Your task to perform on an android device: Open Chrome and go to the settings page Image 0: 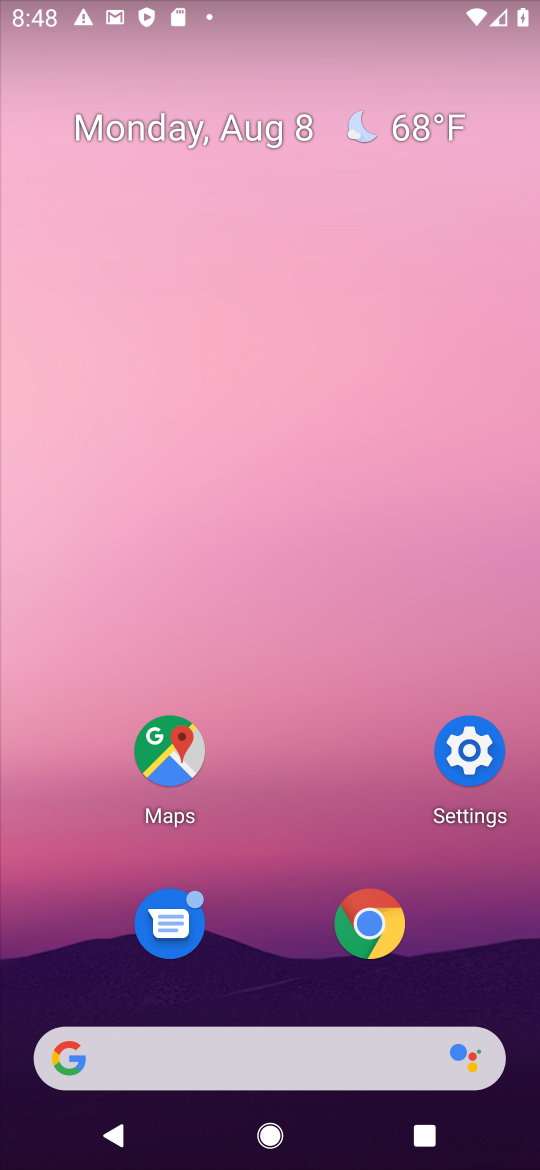
Step 0: click (359, 903)
Your task to perform on an android device: Open Chrome and go to the settings page Image 1: 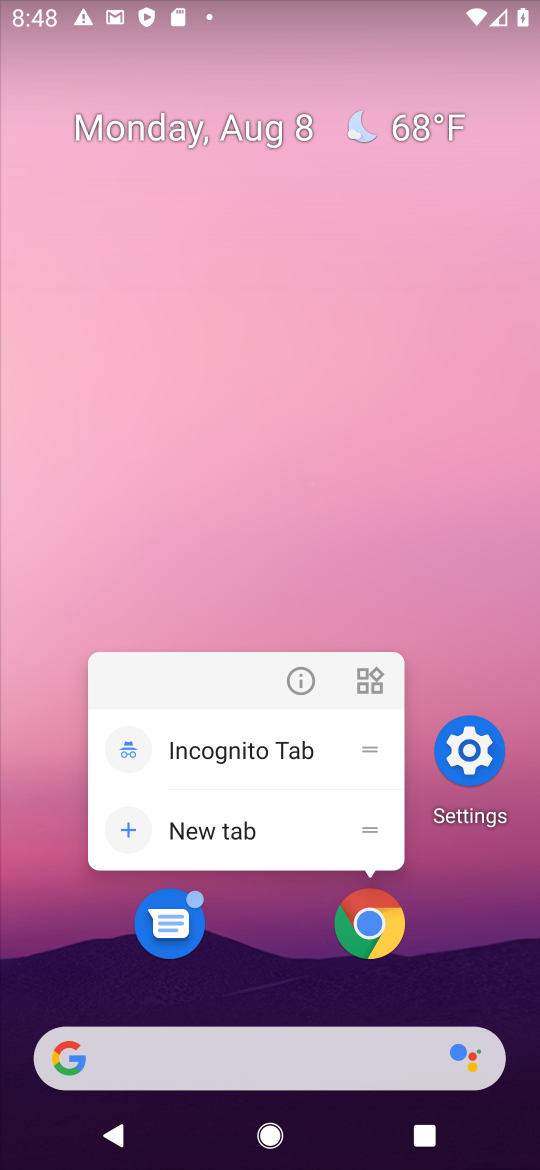
Step 1: click (374, 914)
Your task to perform on an android device: Open Chrome and go to the settings page Image 2: 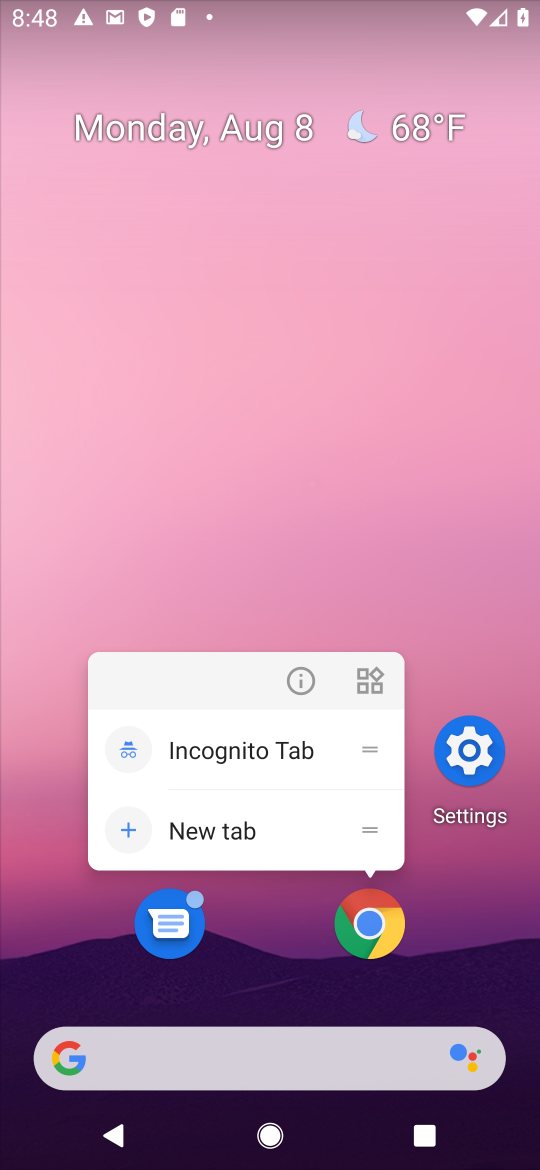
Step 2: click (374, 917)
Your task to perform on an android device: Open Chrome and go to the settings page Image 3: 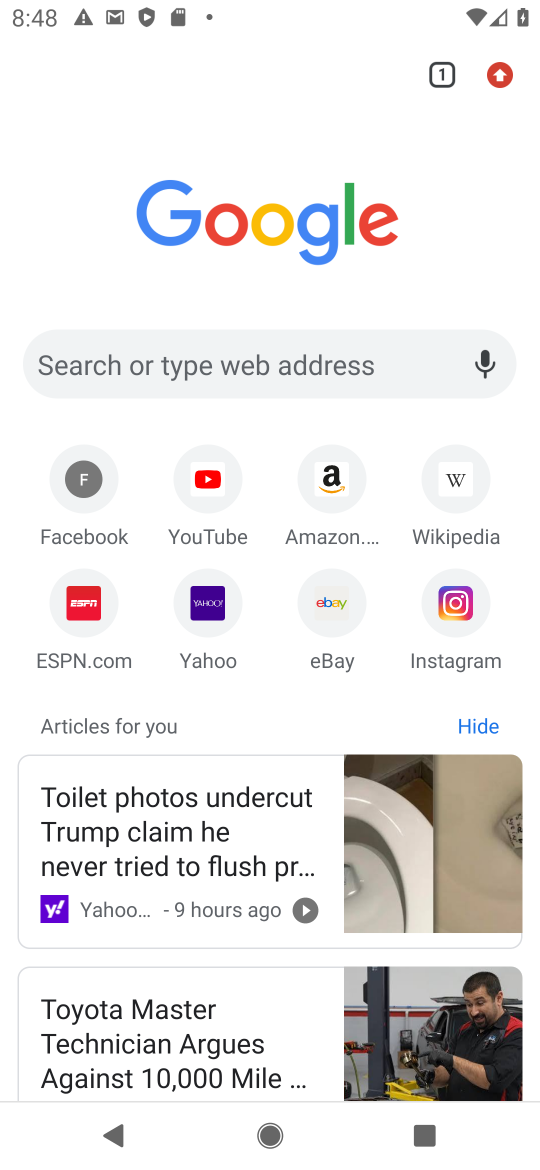
Step 3: task complete